Your task to perform on an android device: Show me productivity apps on the Play Store Image 0: 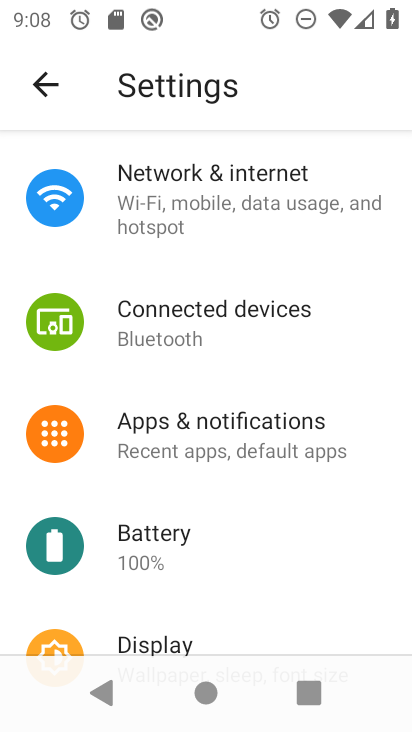
Step 0: press home button
Your task to perform on an android device: Show me productivity apps on the Play Store Image 1: 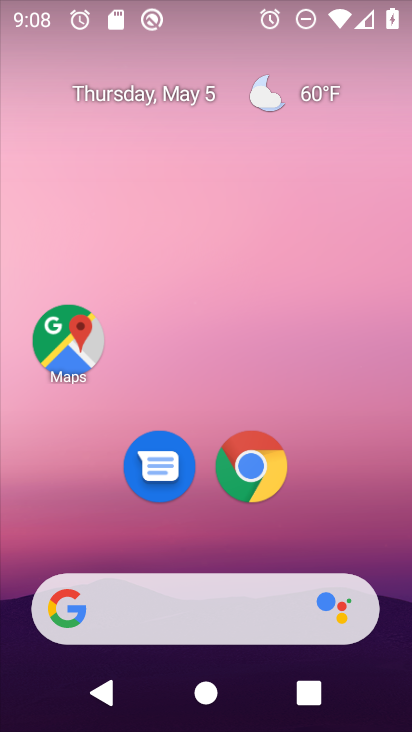
Step 1: drag from (112, 585) to (191, 55)
Your task to perform on an android device: Show me productivity apps on the Play Store Image 2: 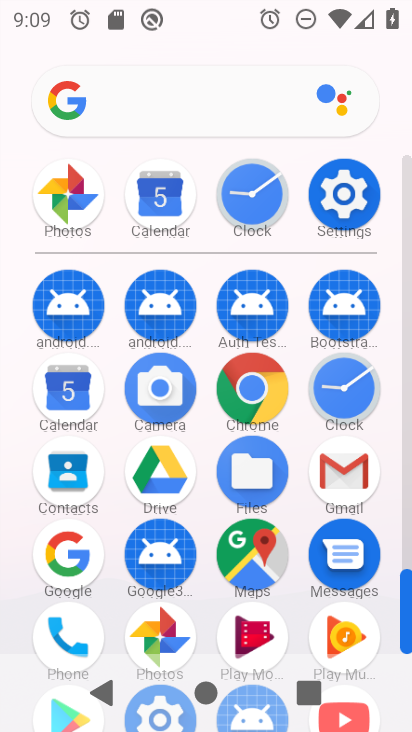
Step 2: drag from (201, 610) to (325, 96)
Your task to perform on an android device: Show me productivity apps on the Play Store Image 3: 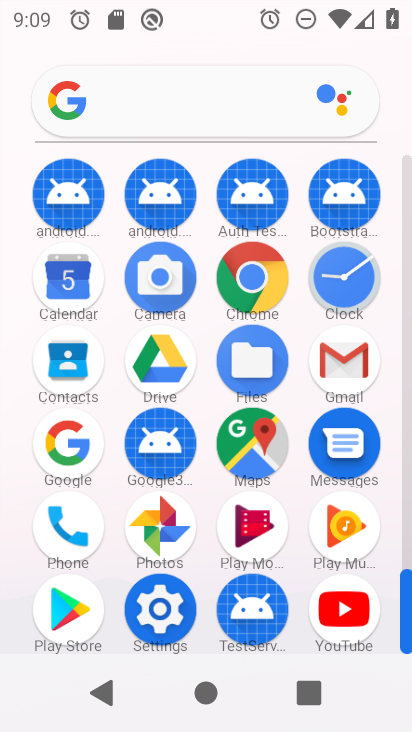
Step 3: click (83, 604)
Your task to perform on an android device: Show me productivity apps on the Play Store Image 4: 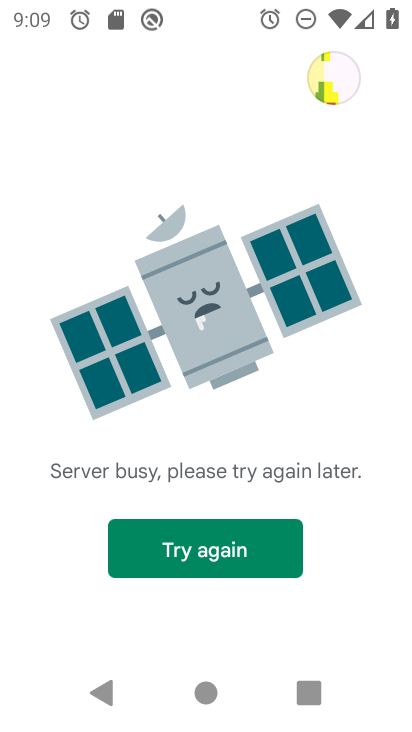
Step 4: task complete